Your task to perform on an android device: Search for the top rated book on goodreads. Image 0: 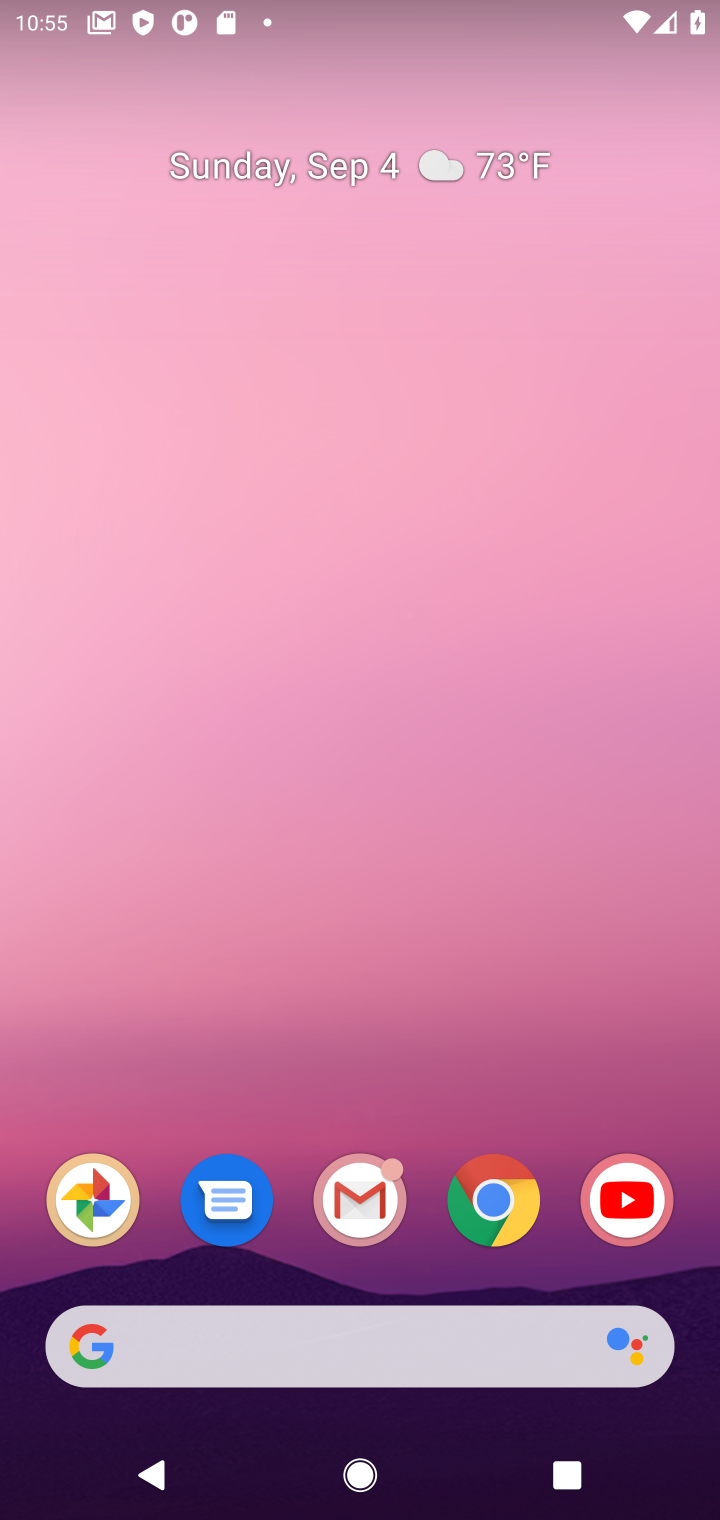
Step 0: click (475, 298)
Your task to perform on an android device: Search for the top rated book on goodreads. Image 1: 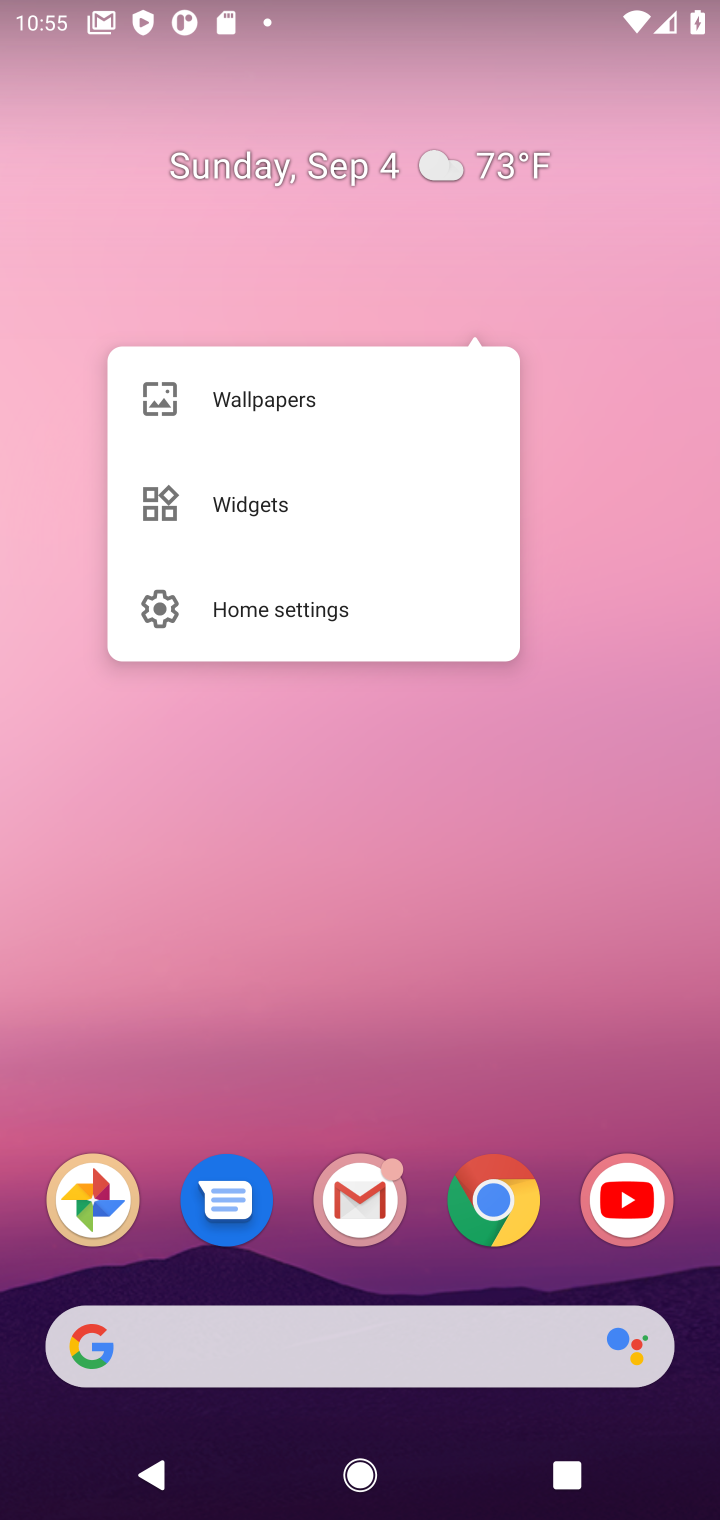
Step 1: click (558, 799)
Your task to perform on an android device: Search for the top rated book on goodreads. Image 2: 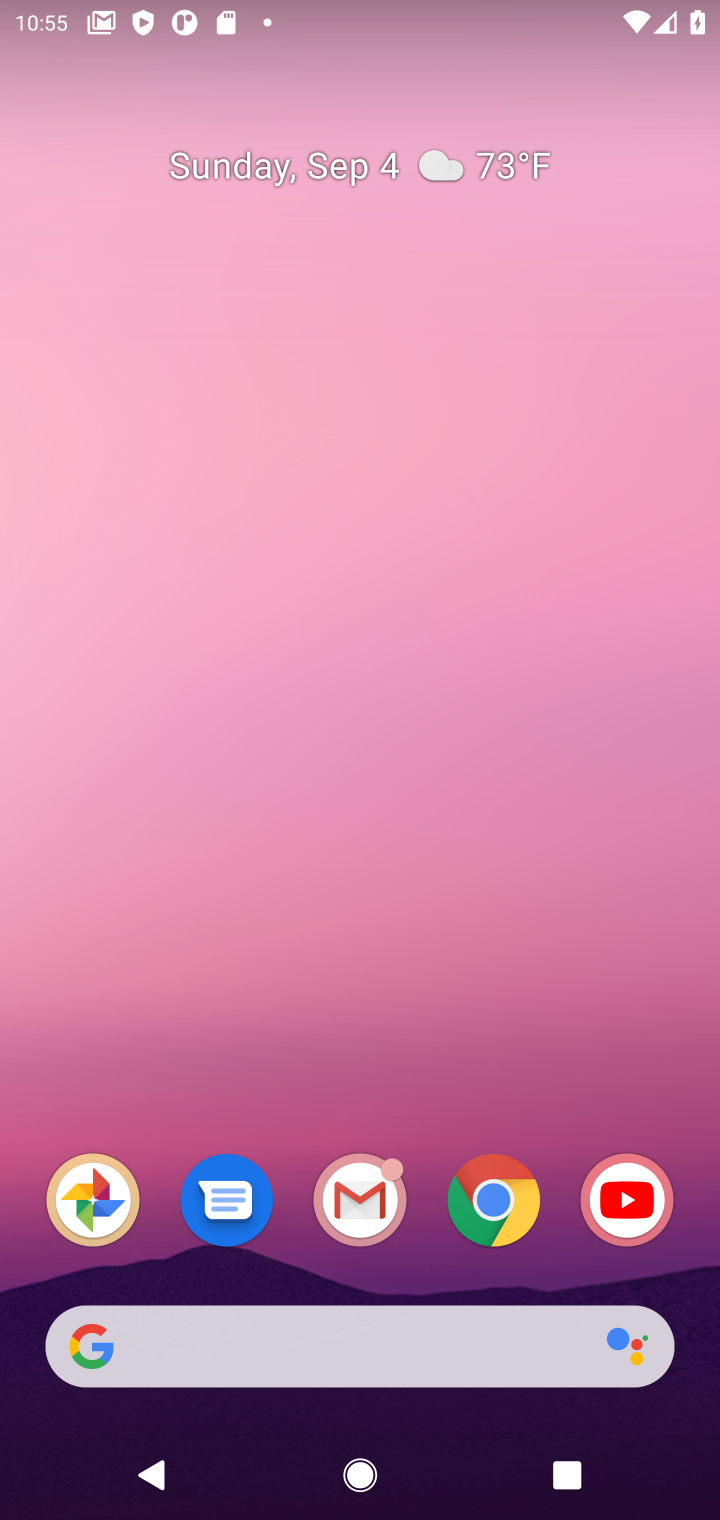
Step 2: drag from (390, 1114) to (335, 291)
Your task to perform on an android device: Search for the top rated book on goodreads. Image 3: 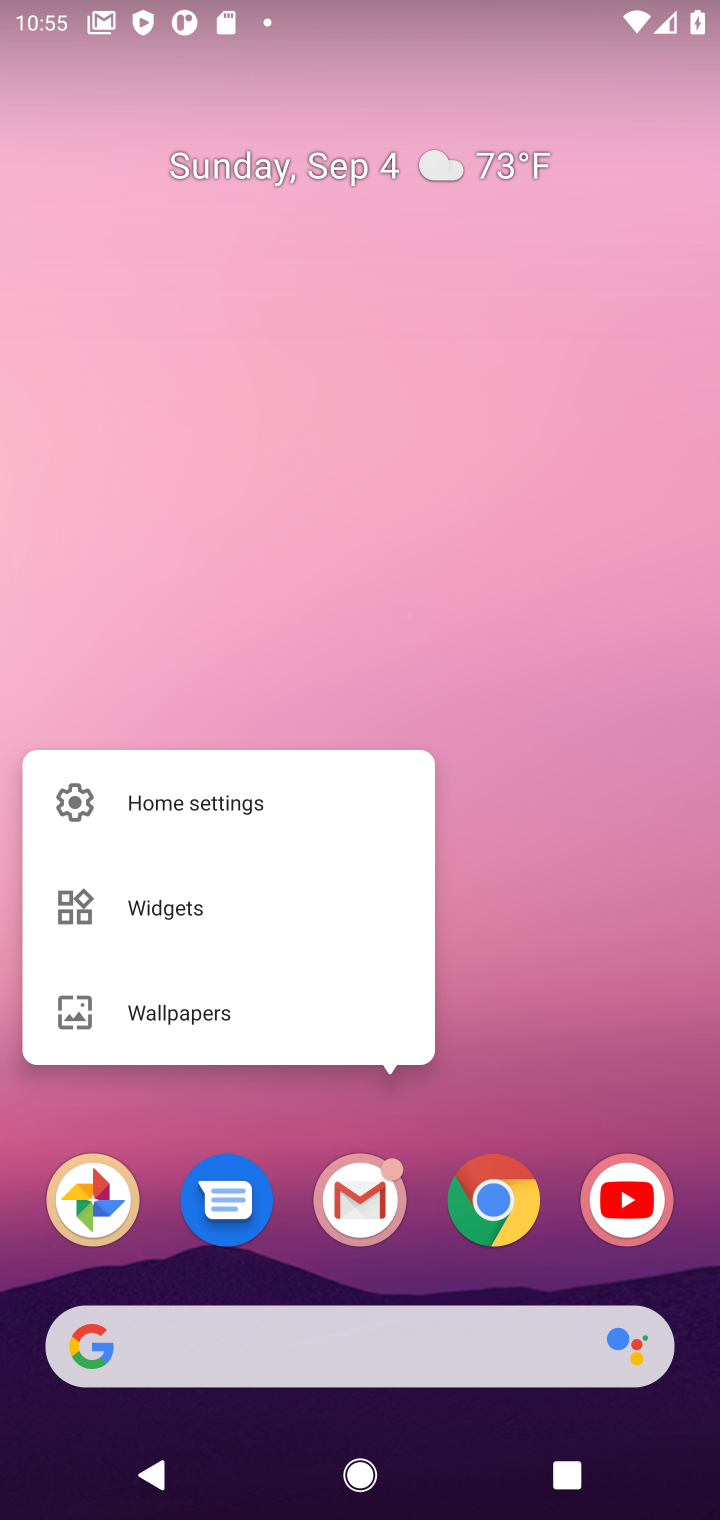
Step 3: drag from (391, 1066) to (590, 6)
Your task to perform on an android device: Search for the top rated book on goodreads. Image 4: 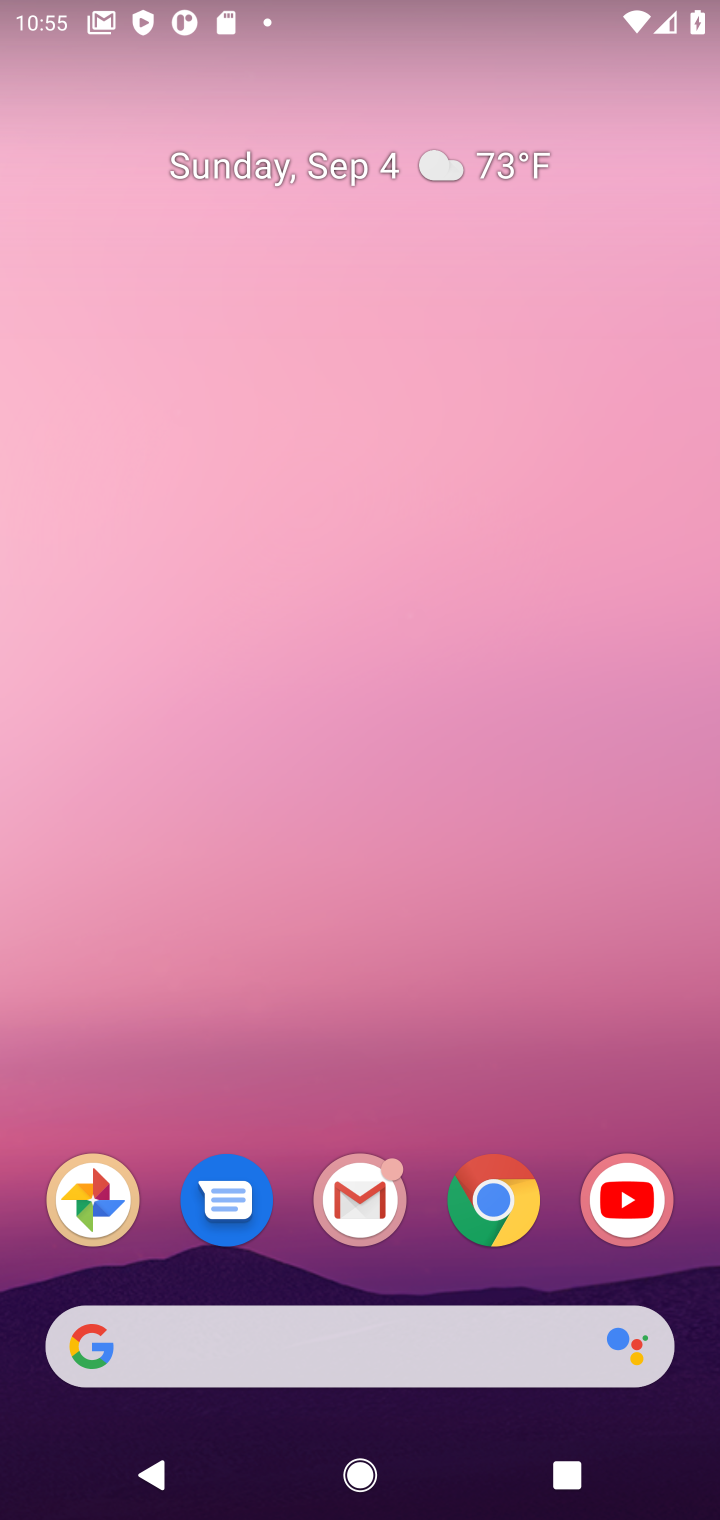
Step 4: drag from (674, 612) to (420, 23)
Your task to perform on an android device: Search for the top rated book on goodreads. Image 5: 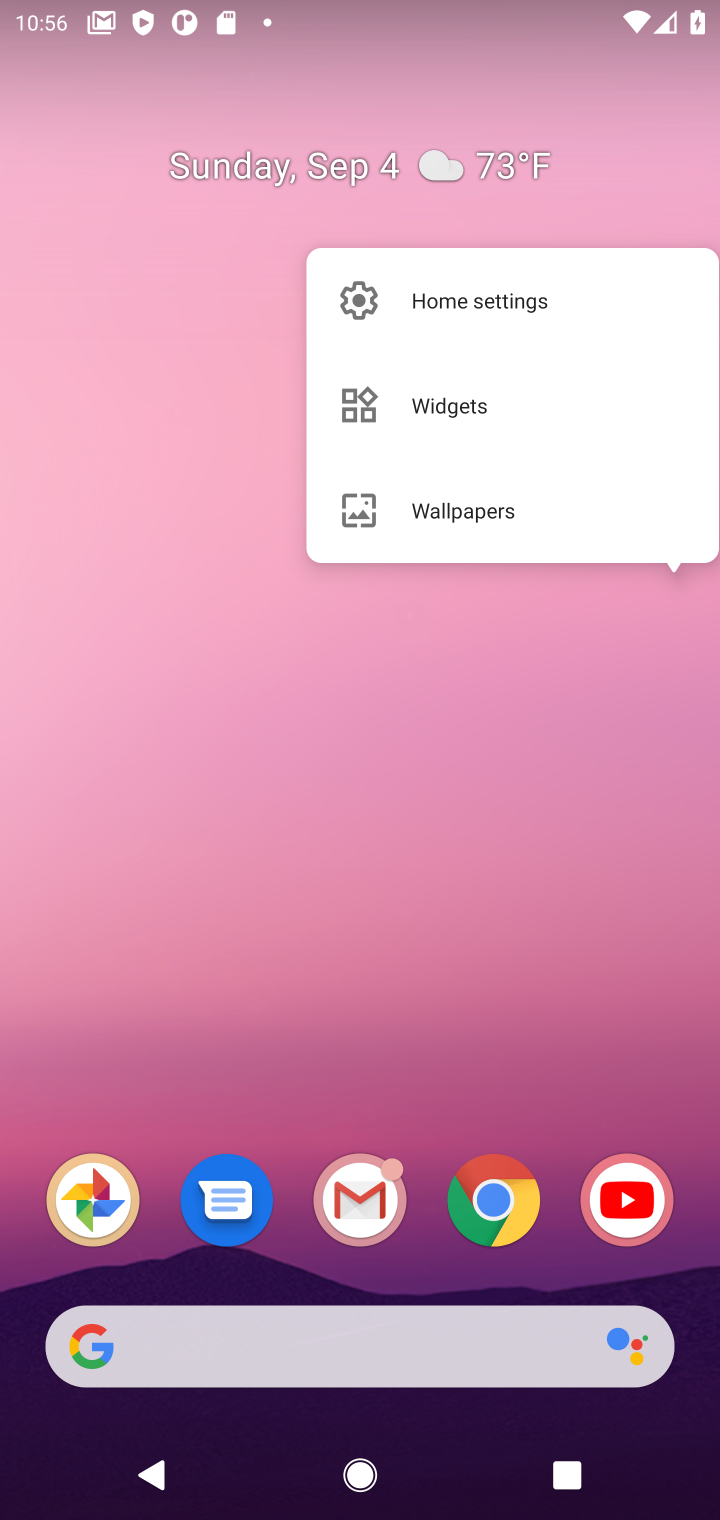
Step 5: click (308, 980)
Your task to perform on an android device: Search for the top rated book on goodreads. Image 6: 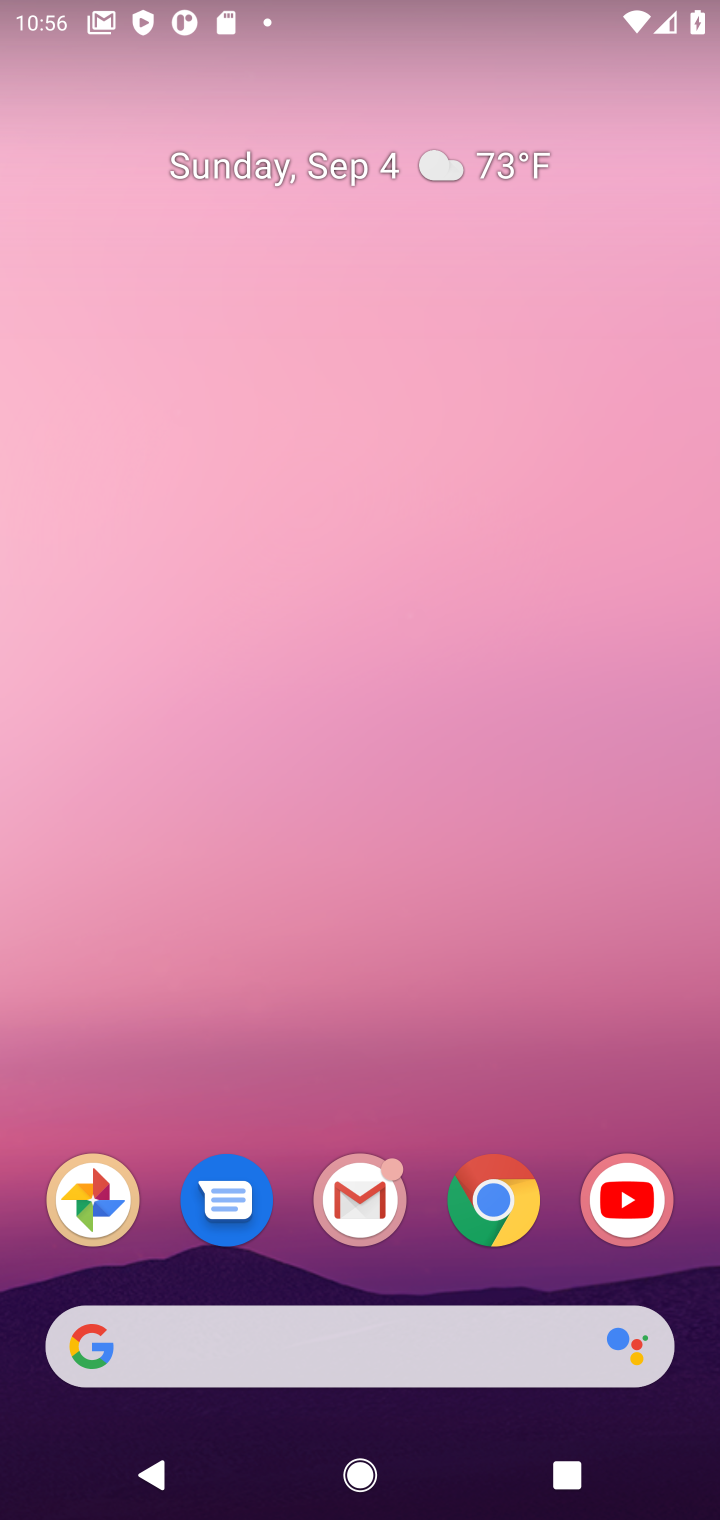
Step 6: click (504, 24)
Your task to perform on an android device: Search for the top rated book on goodreads. Image 7: 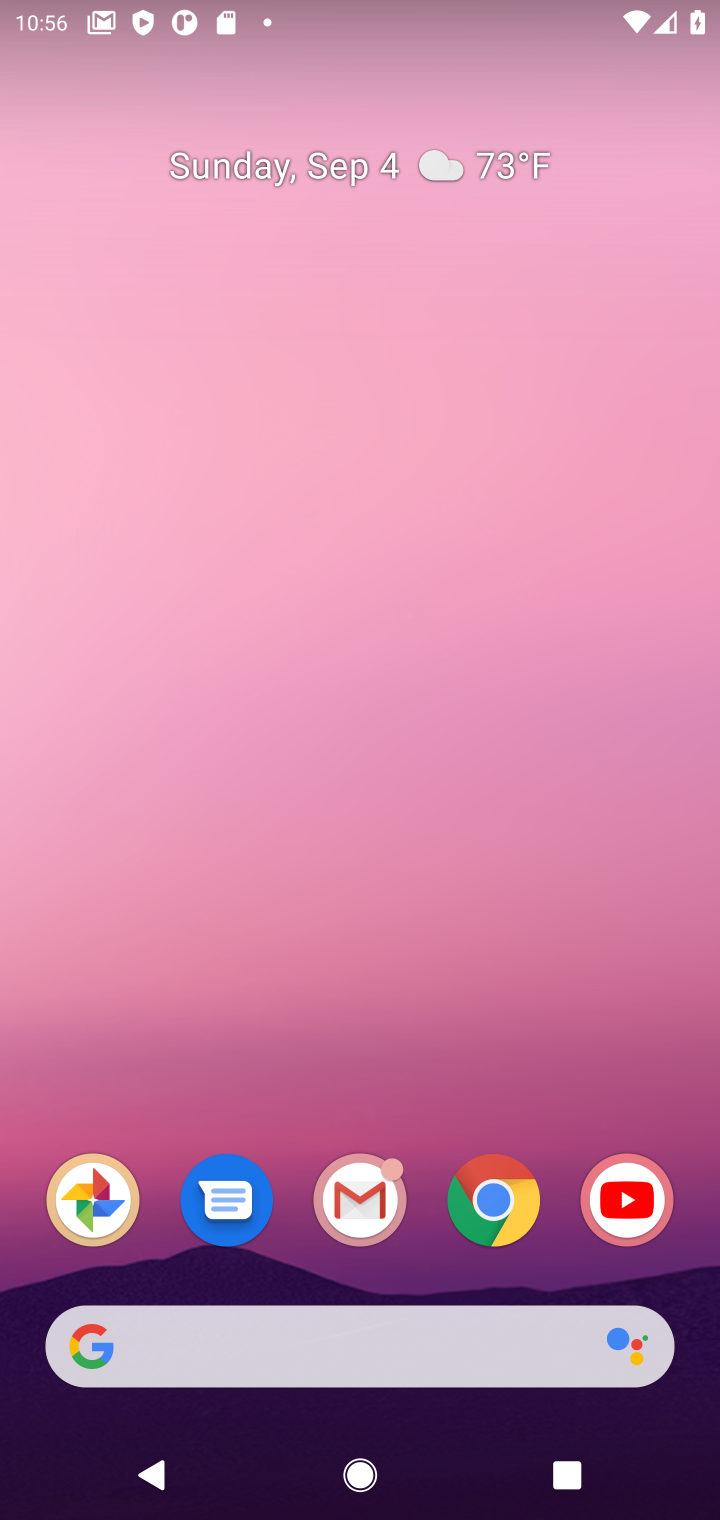
Step 7: drag from (459, 1317) to (552, 249)
Your task to perform on an android device: Search for the top rated book on goodreads. Image 8: 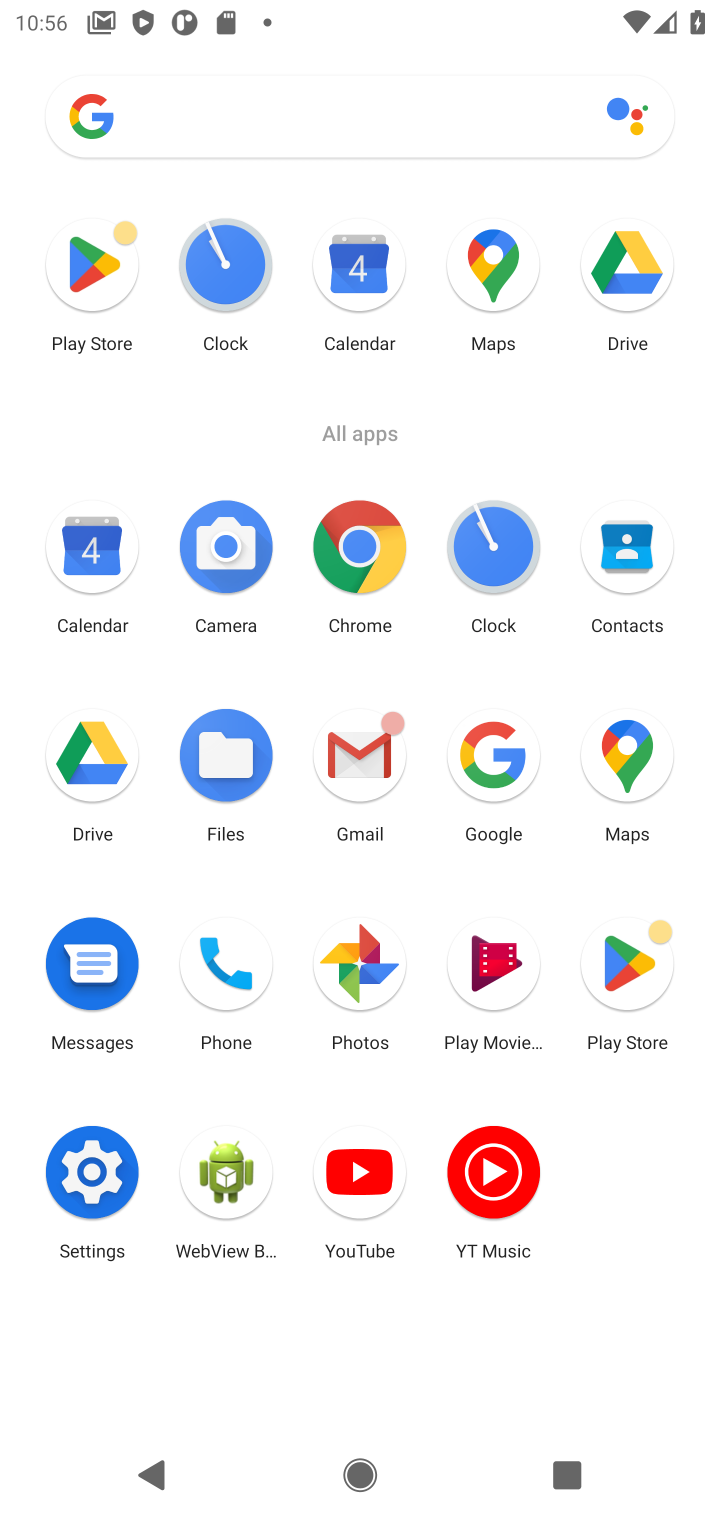
Step 8: click (371, 590)
Your task to perform on an android device: Search for the top rated book on goodreads. Image 9: 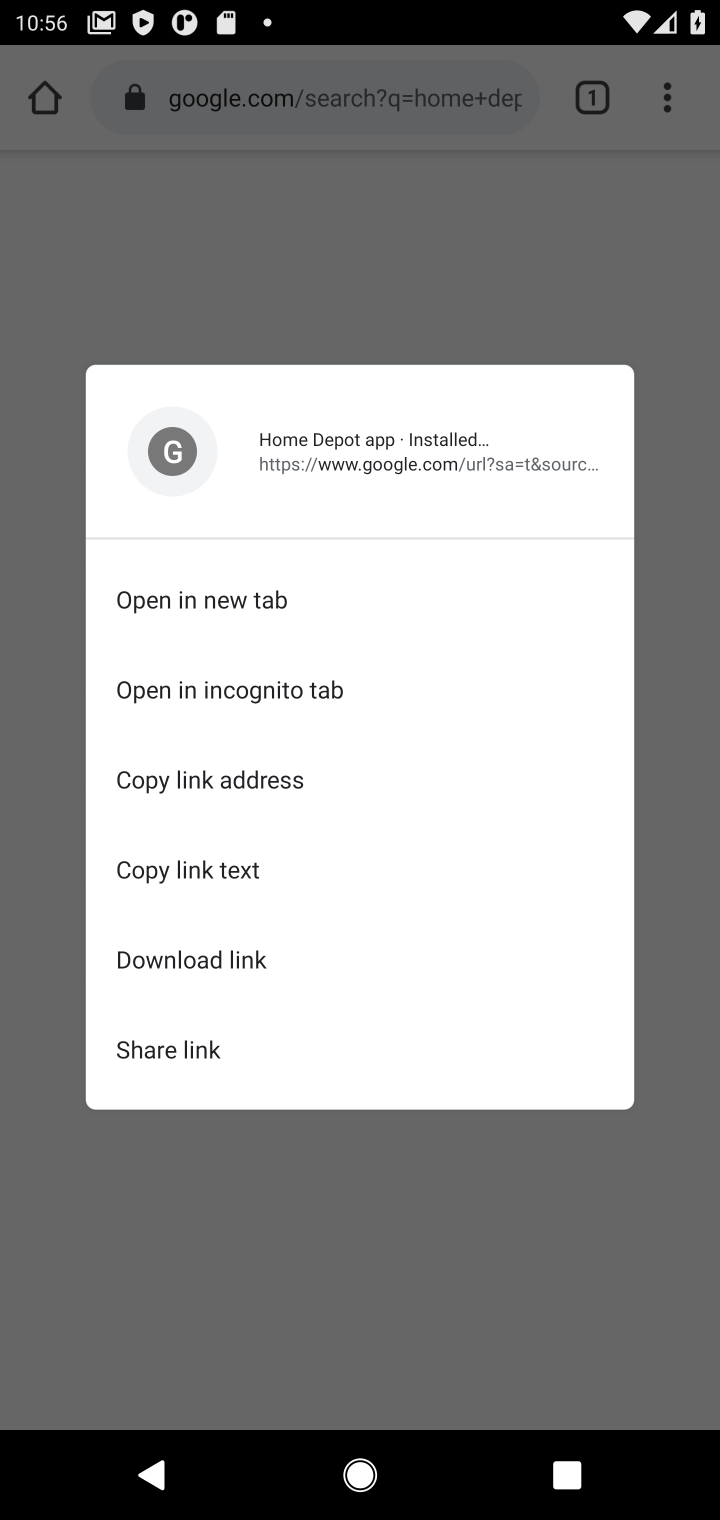
Step 9: click (366, 280)
Your task to perform on an android device: Search for the top rated book on goodreads. Image 10: 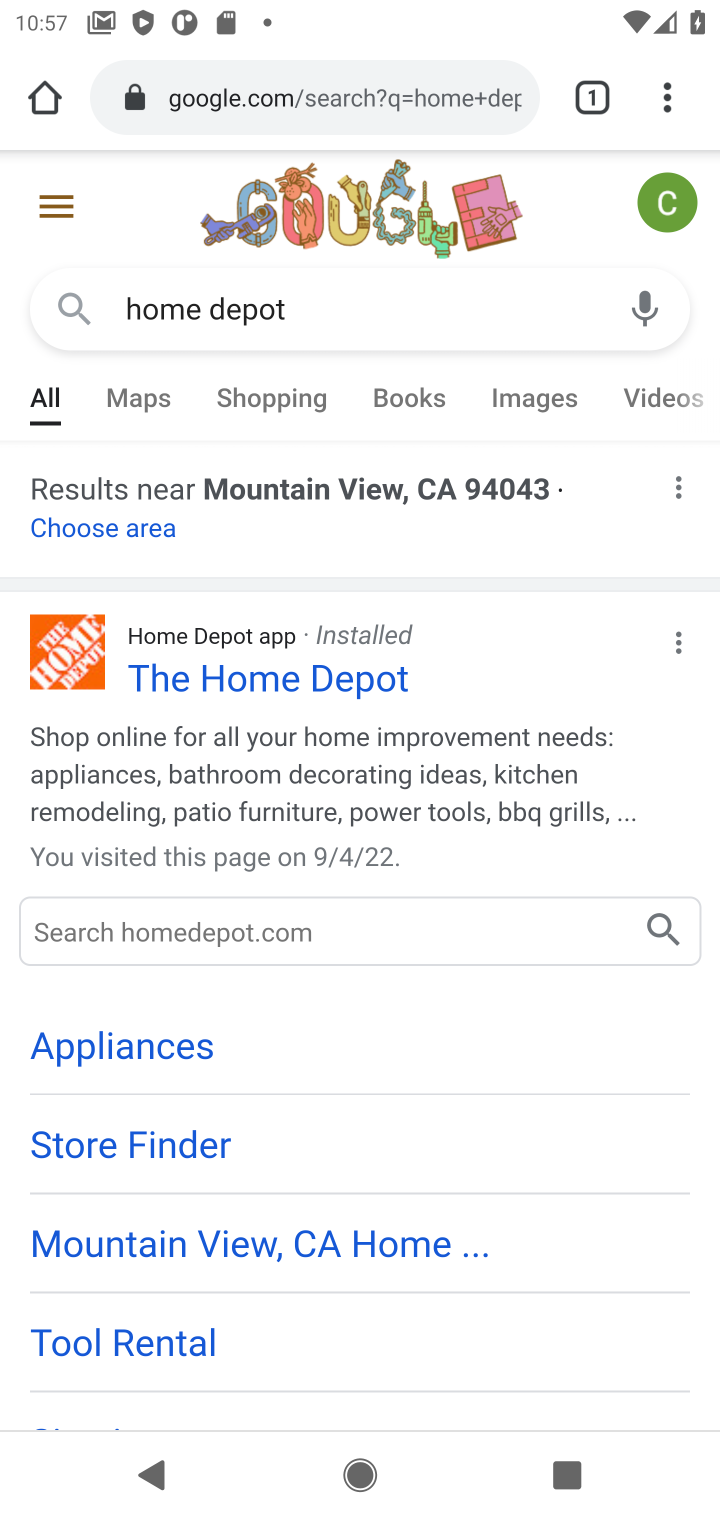
Step 10: click (488, 95)
Your task to perform on an android device: Search for the top rated book on goodreads. Image 11: 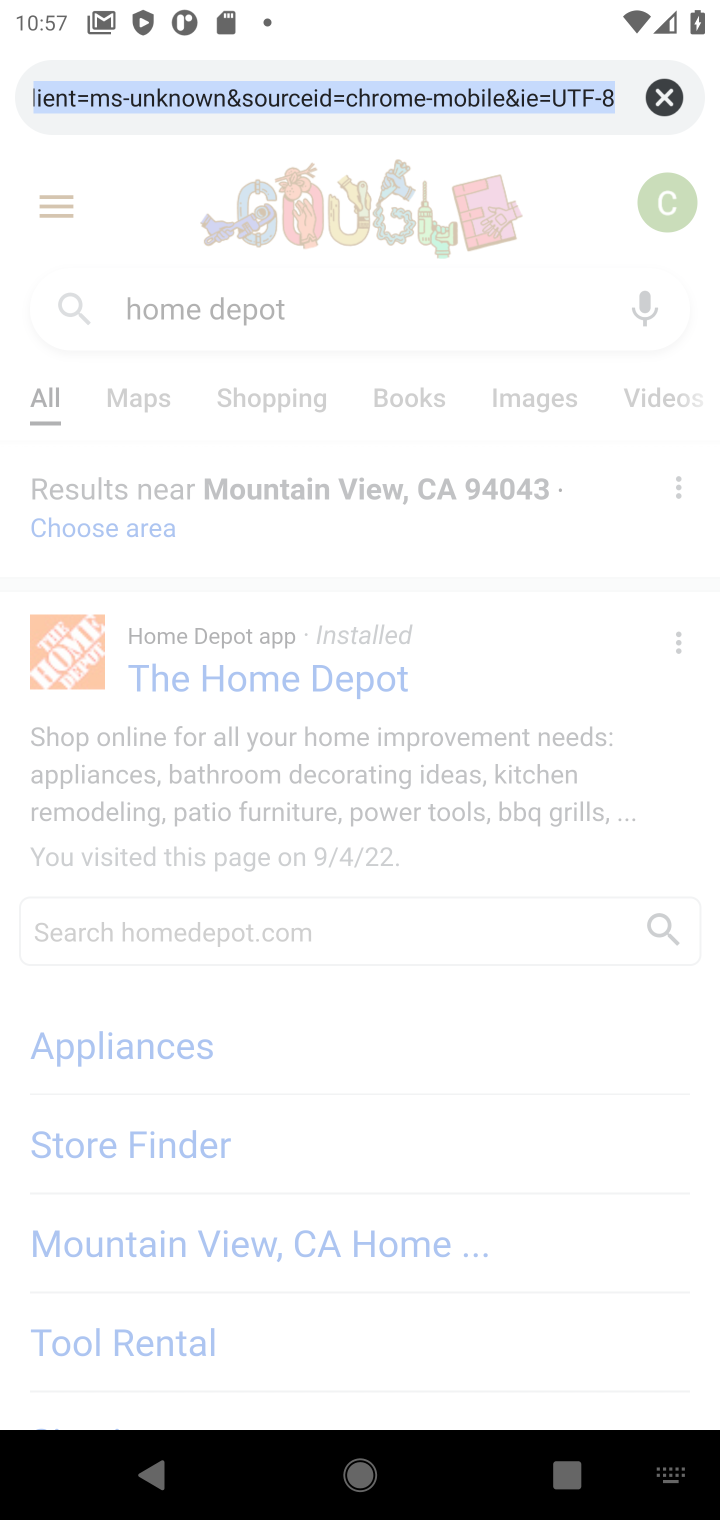
Step 11: click (488, 95)
Your task to perform on an android device: Search for the top rated book on goodreads. Image 12: 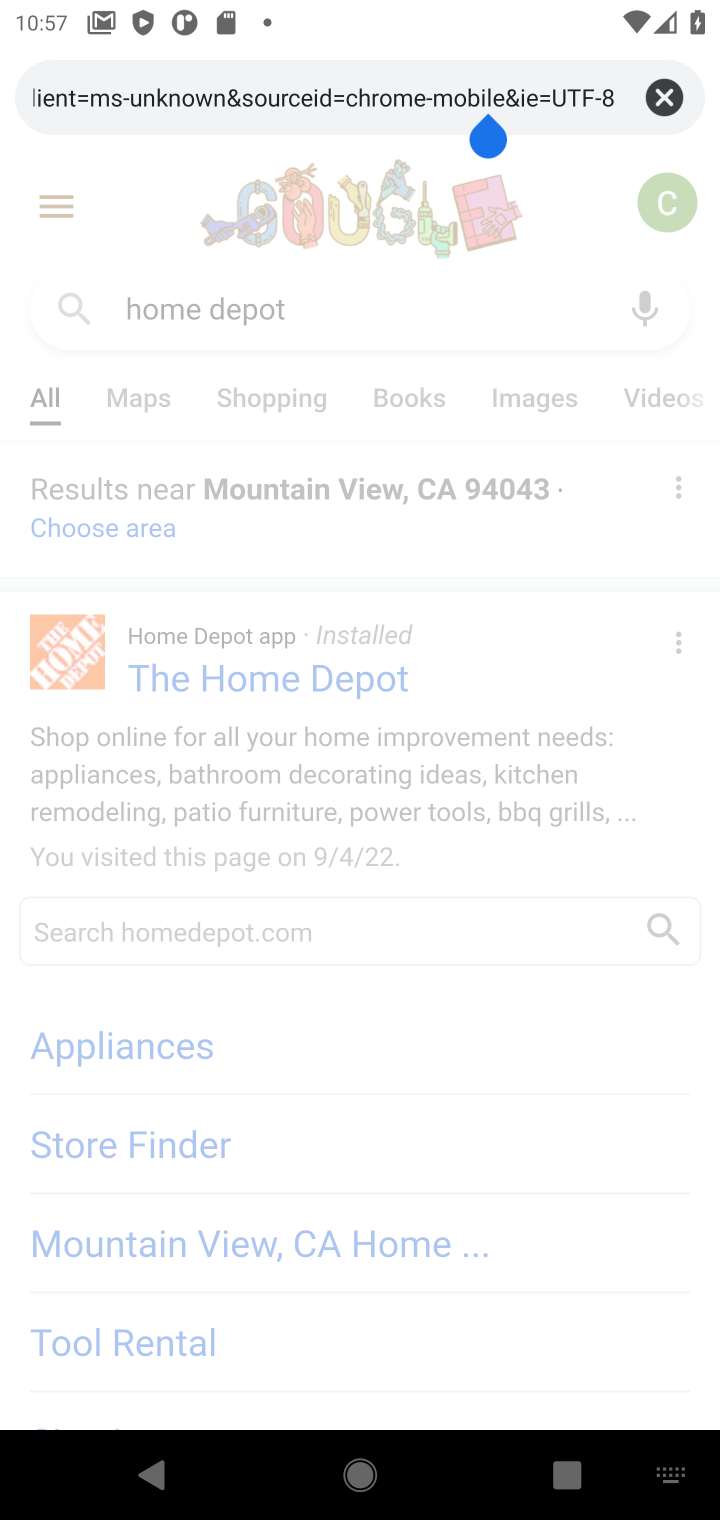
Step 12: click (654, 105)
Your task to perform on an android device: Search for the top rated book on goodreads. Image 13: 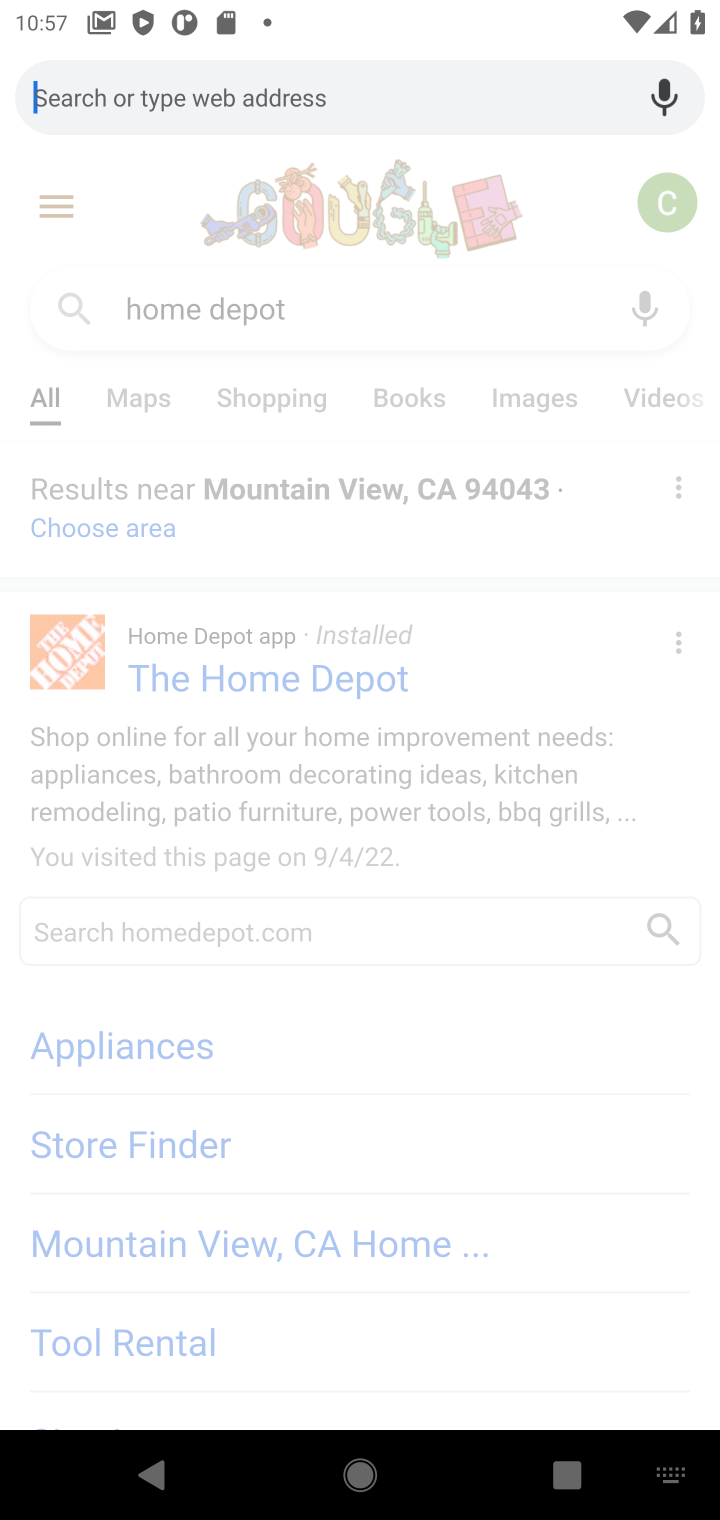
Step 13: type "goodreads"
Your task to perform on an android device: Search for the top rated book on goodreads. Image 14: 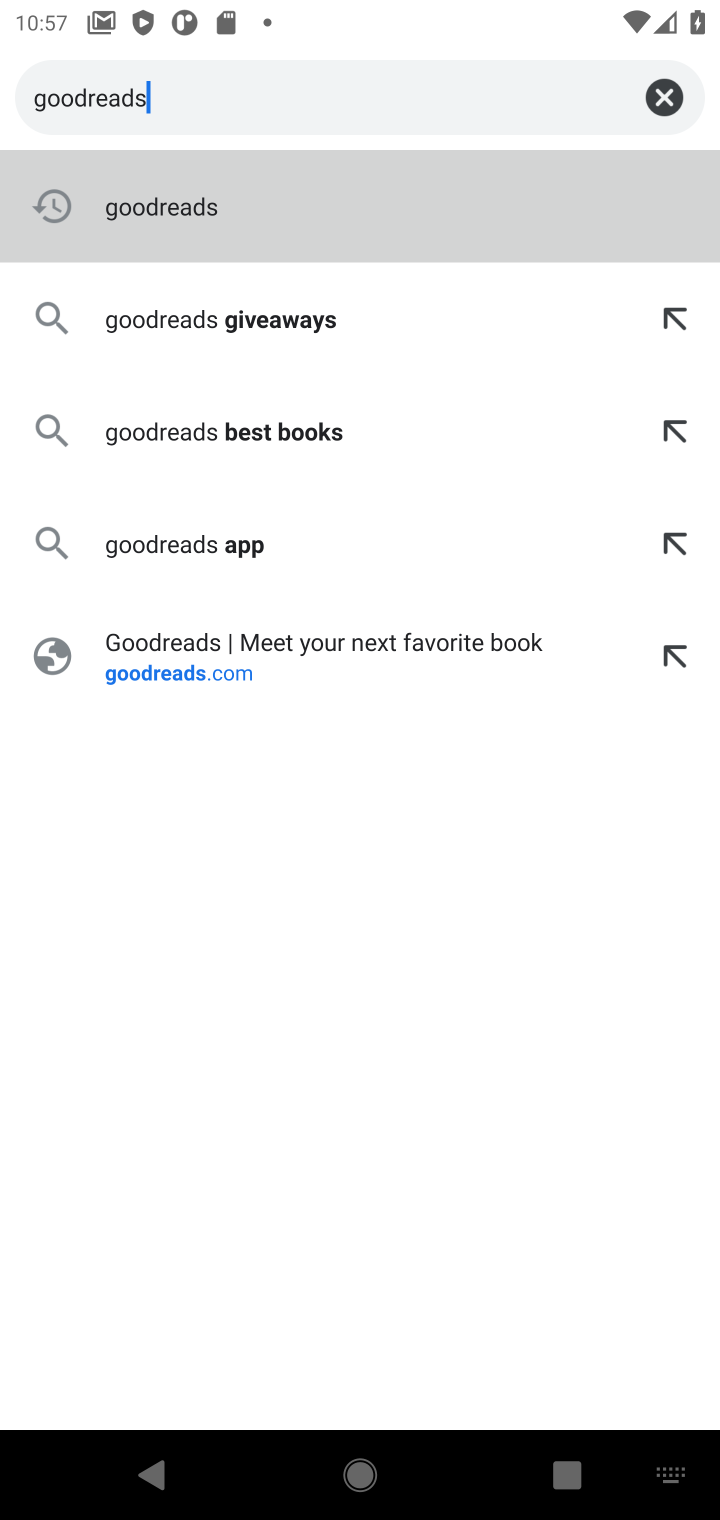
Step 14: click (325, 210)
Your task to perform on an android device: Search for the top rated book on goodreads. Image 15: 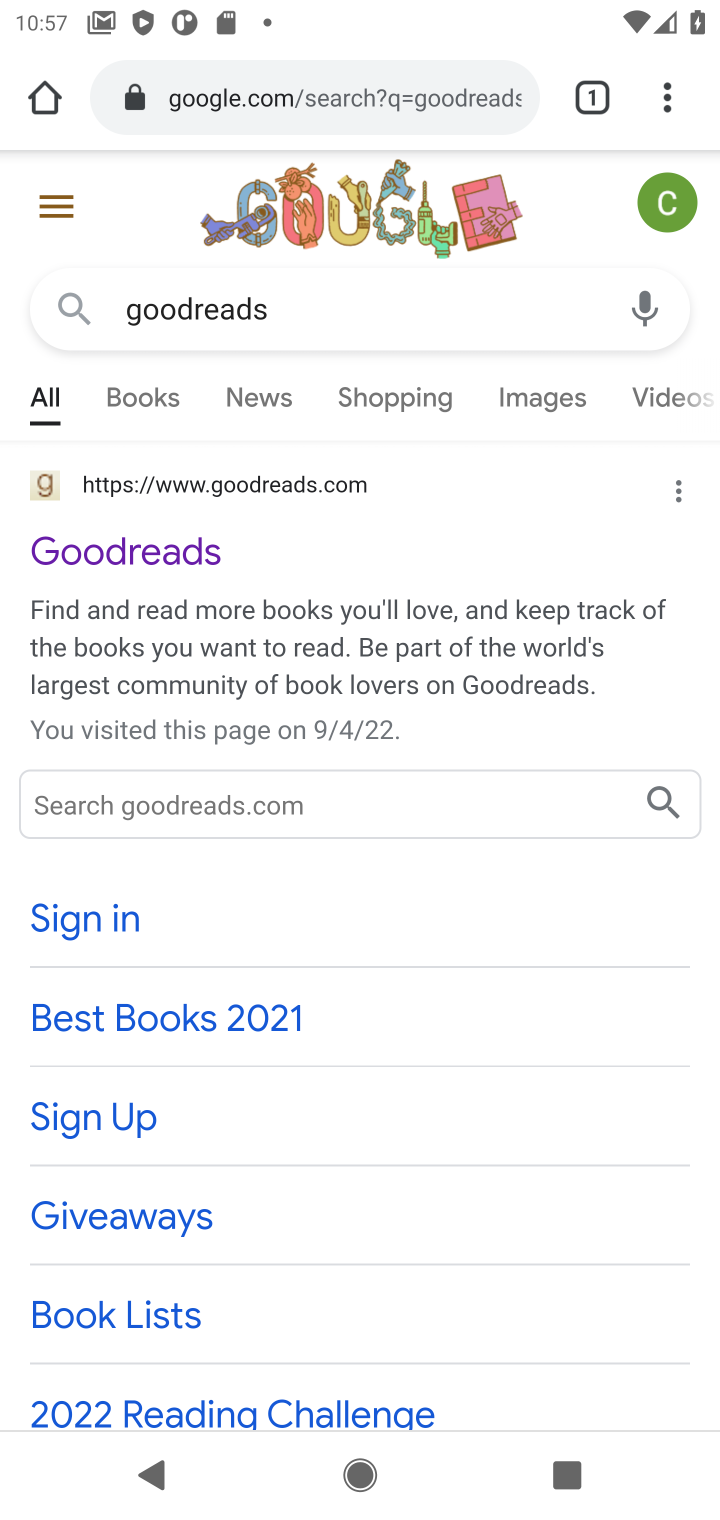
Step 15: click (144, 554)
Your task to perform on an android device: Search for the top rated book on goodreads. Image 16: 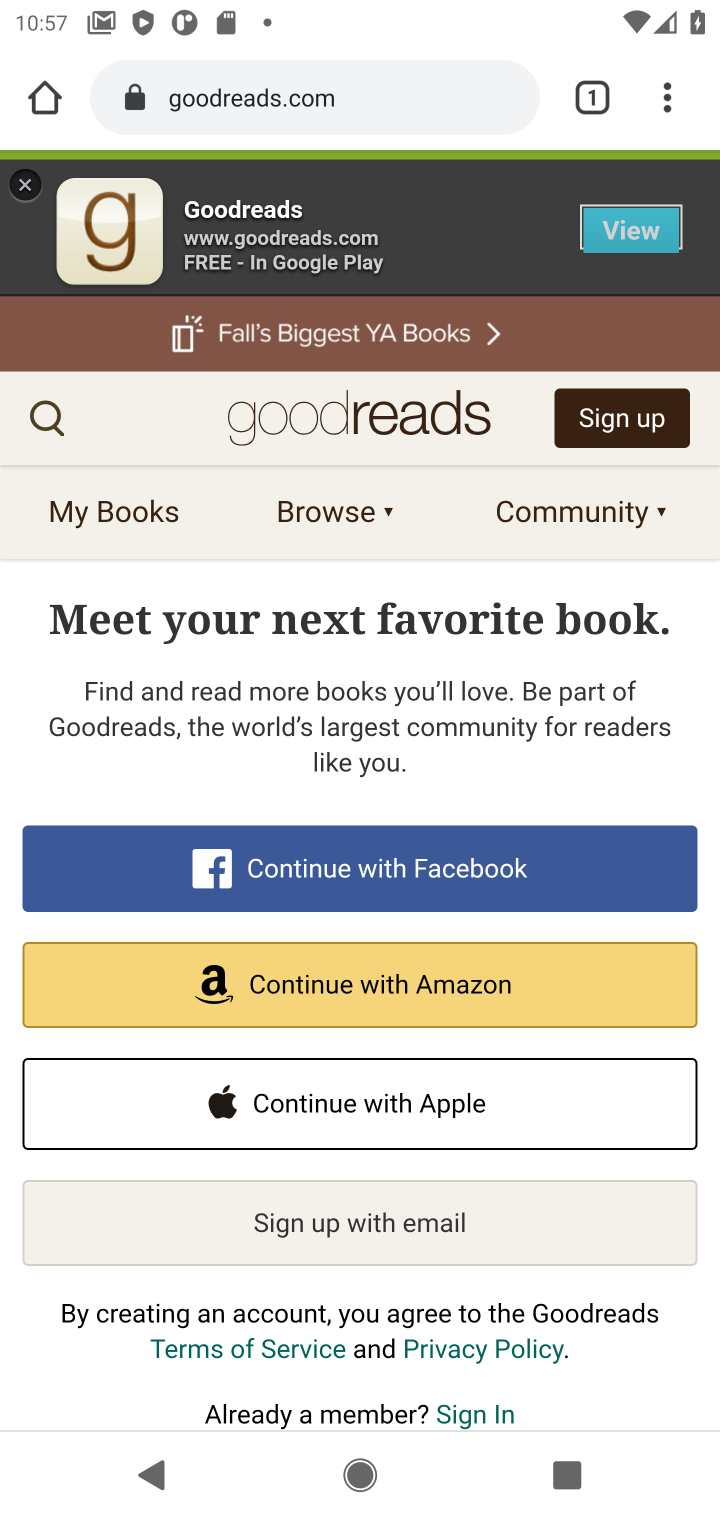
Step 16: click (42, 403)
Your task to perform on an android device: Search for the top rated book on goodreads. Image 17: 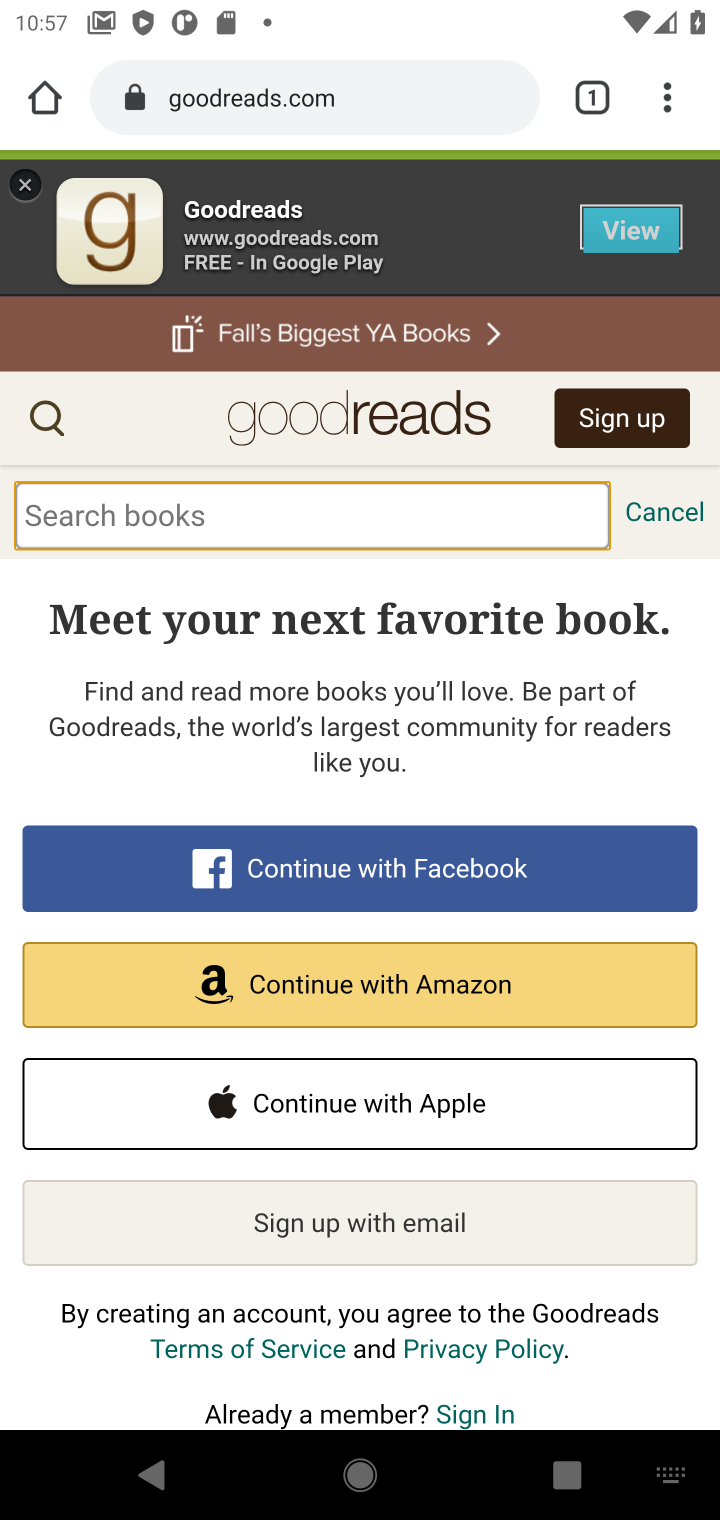
Step 17: click (185, 513)
Your task to perform on an android device: Search for the top rated book on goodreads. Image 18: 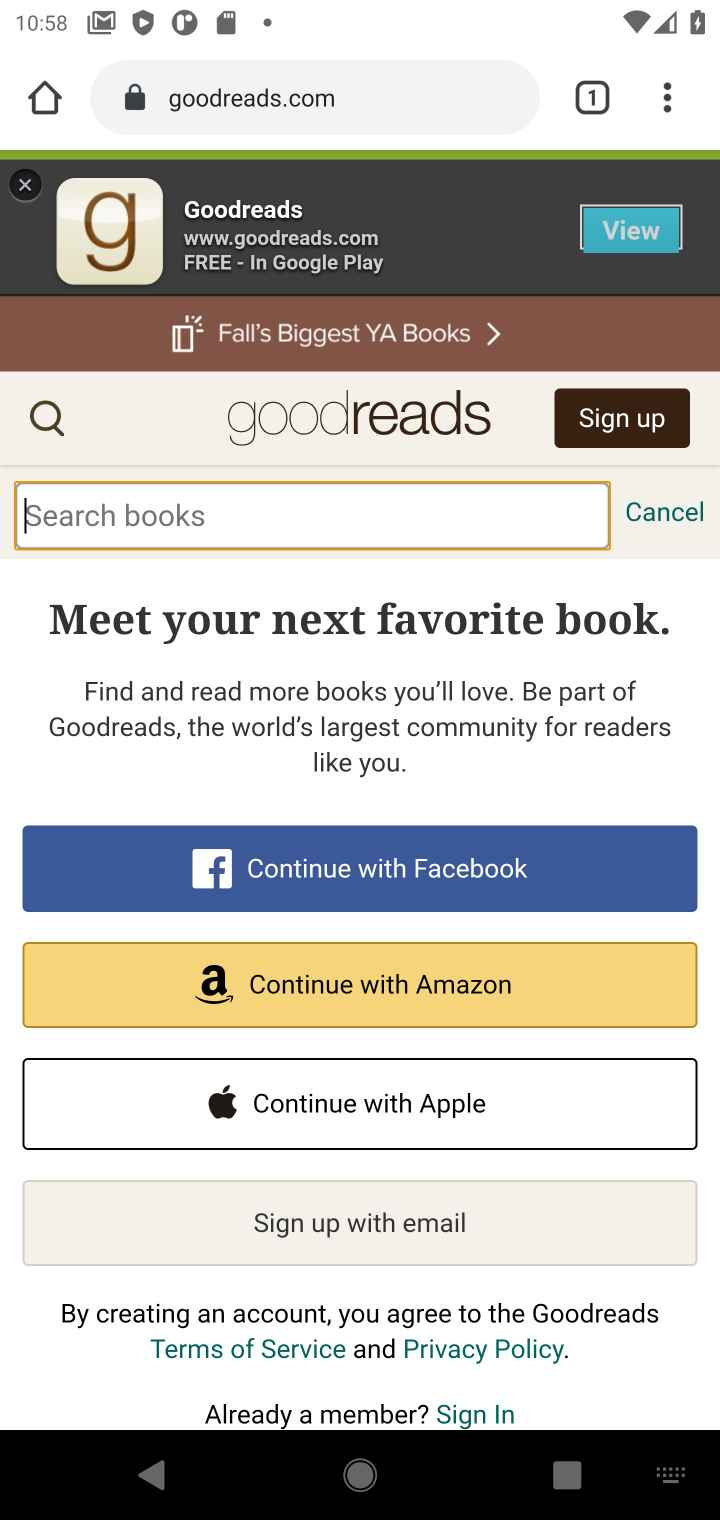
Step 18: type "top rated book"
Your task to perform on an android device: Search for the top rated book on goodreads. Image 19: 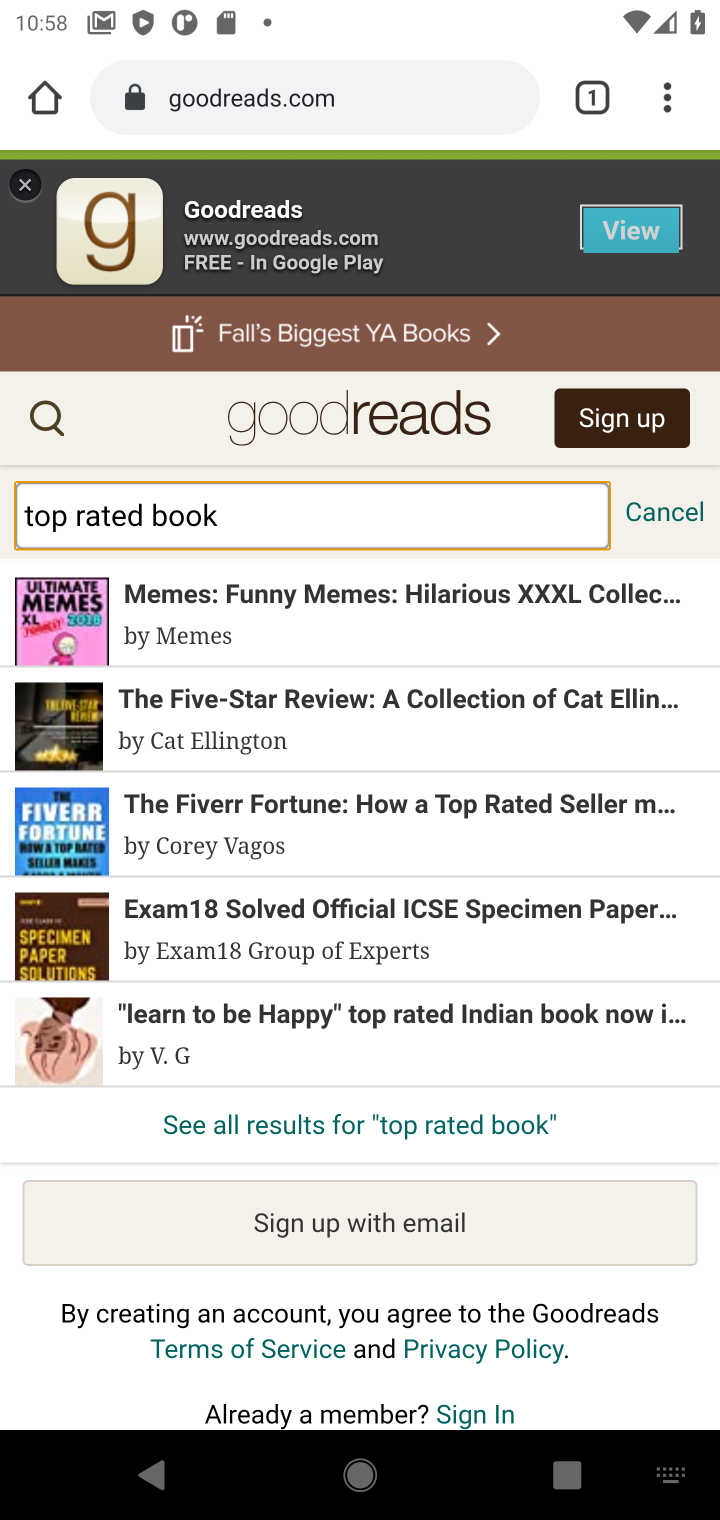
Step 19: click (34, 412)
Your task to perform on an android device: Search for the top rated book on goodreads. Image 20: 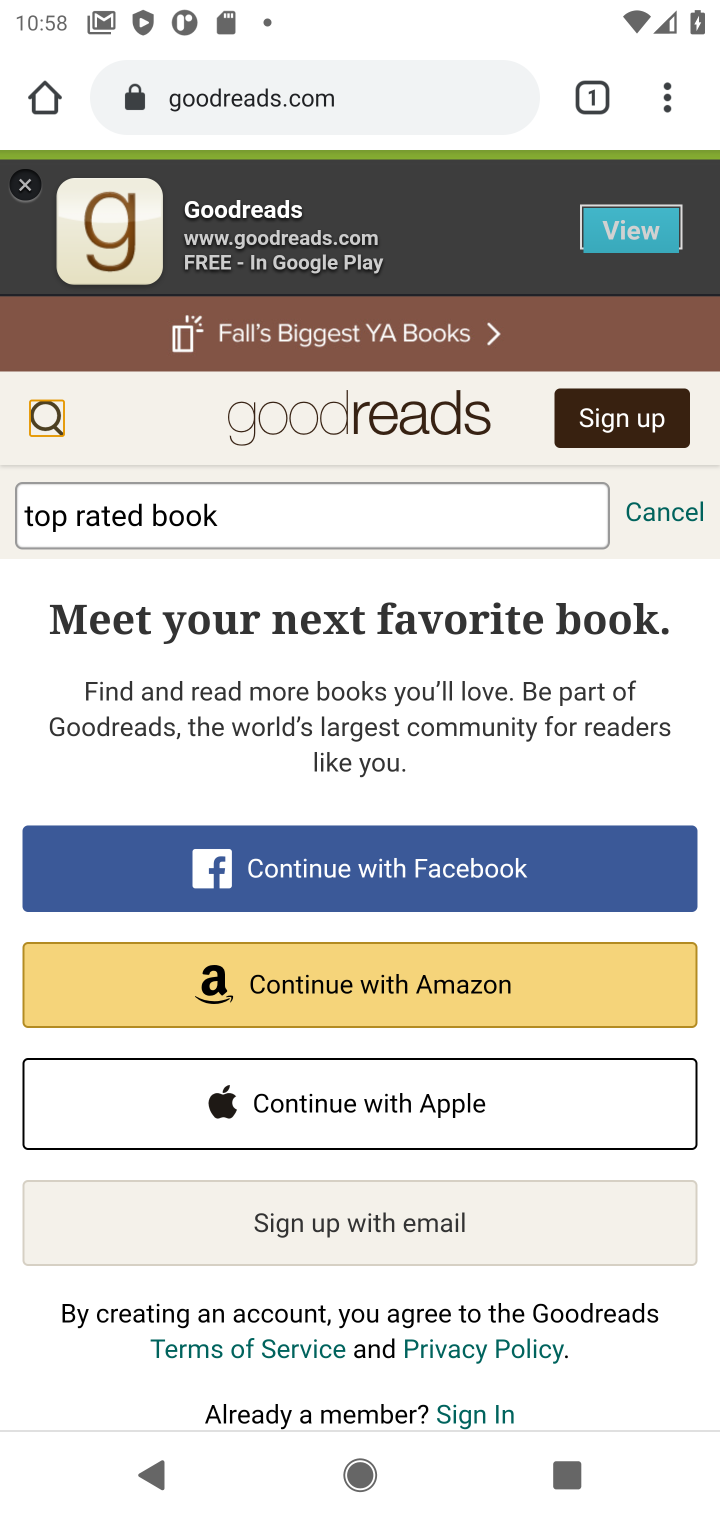
Step 20: task complete